Your task to perform on an android device: change the upload size in google photos Image 0: 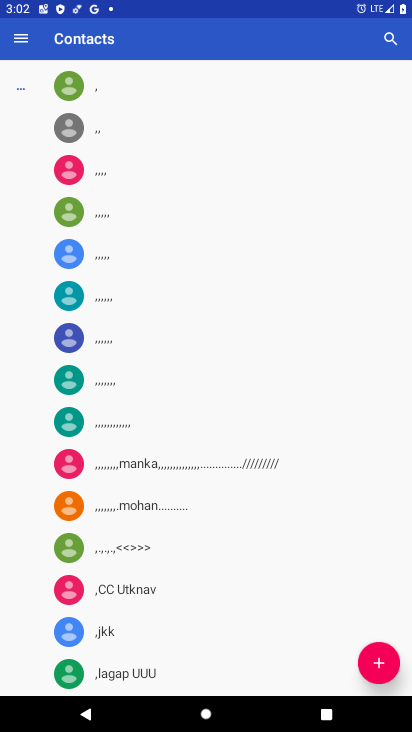
Step 0: press home button
Your task to perform on an android device: change the upload size in google photos Image 1: 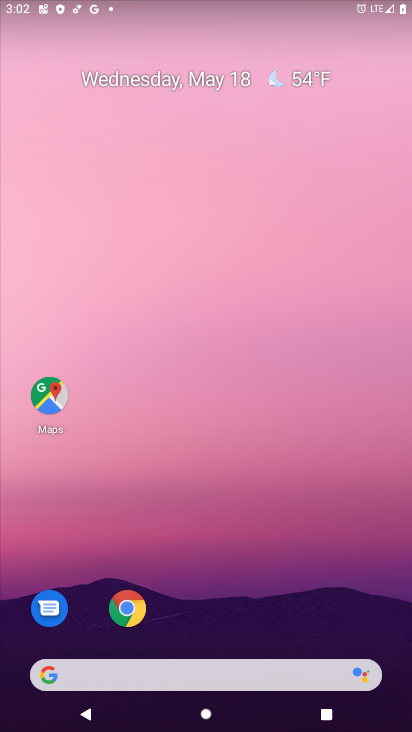
Step 1: drag from (319, 624) to (278, 26)
Your task to perform on an android device: change the upload size in google photos Image 2: 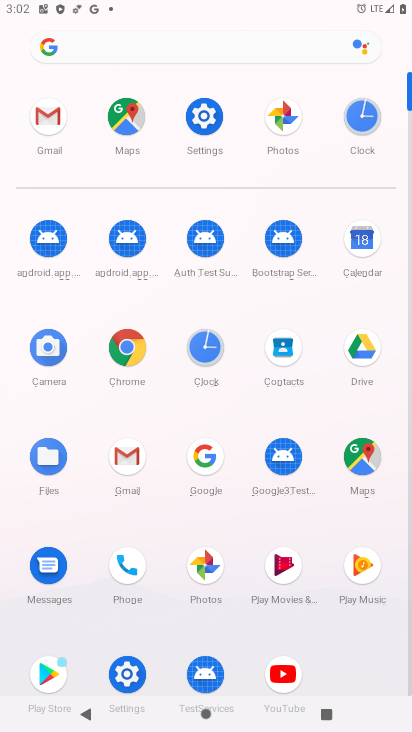
Step 2: click (205, 558)
Your task to perform on an android device: change the upload size in google photos Image 3: 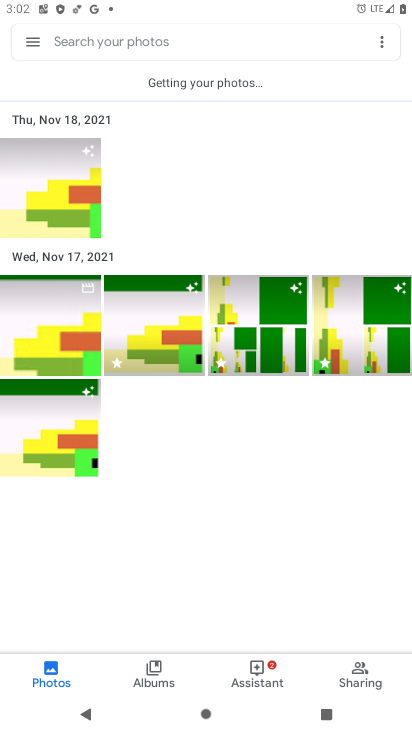
Step 3: click (22, 41)
Your task to perform on an android device: change the upload size in google photos Image 4: 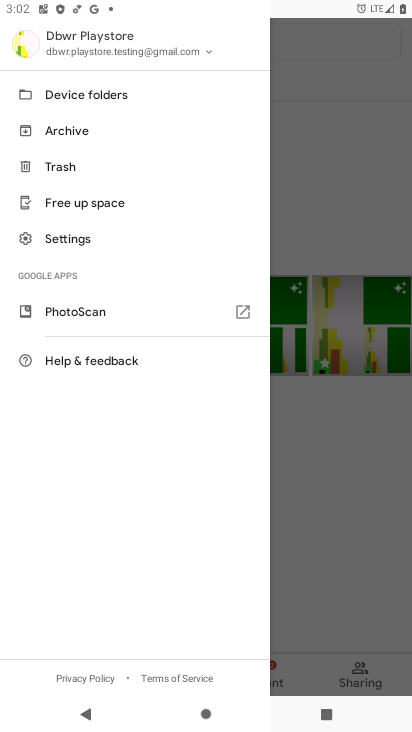
Step 4: click (61, 240)
Your task to perform on an android device: change the upload size in google photos Image 5: 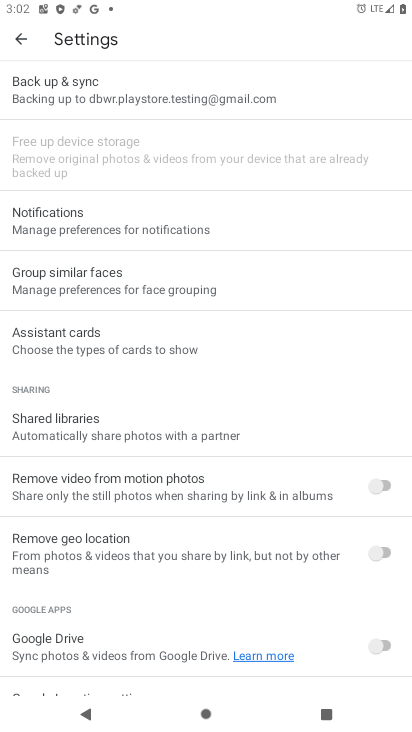
Step 5: click (46, 103)
Your task to perform on an android device: change the upload size in google photos Image 6: 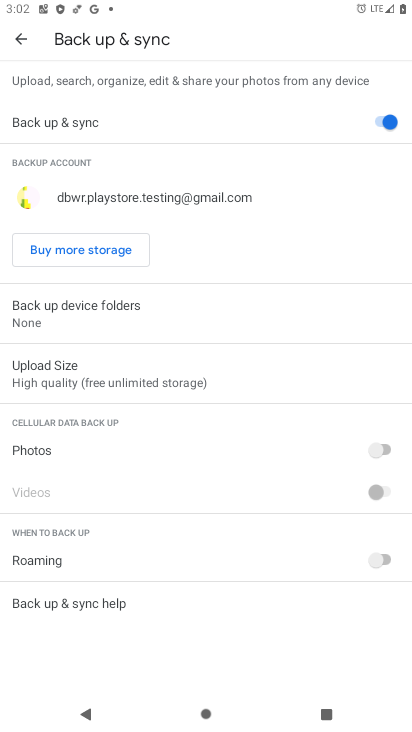
Step 6: click (70, 379)
Your task to perform on an android device: change the upload size in google photos Image 7: 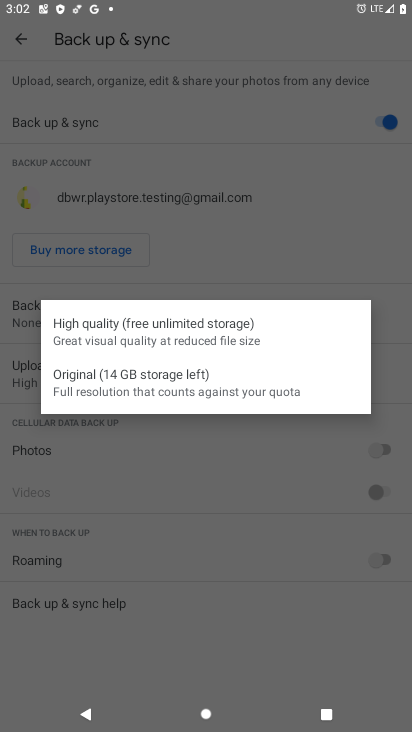
Step 7: click (70, 379)
Your task to perform on an android device: change the upload size in google photos Image 8: 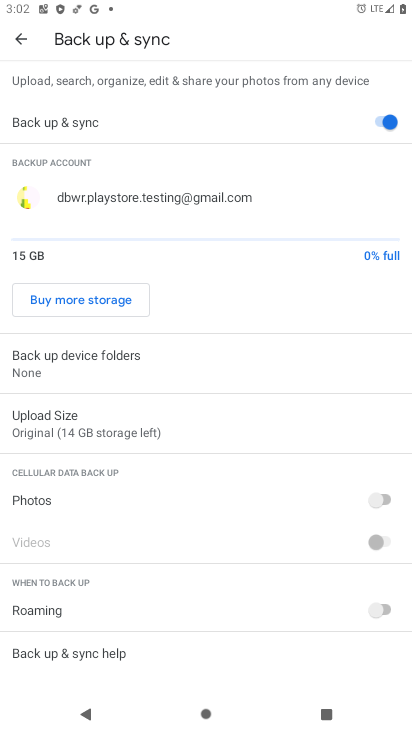
Step 8: task complete